Your task to perform on an android device: Search for Mexican restaurants on Maps Image 0: 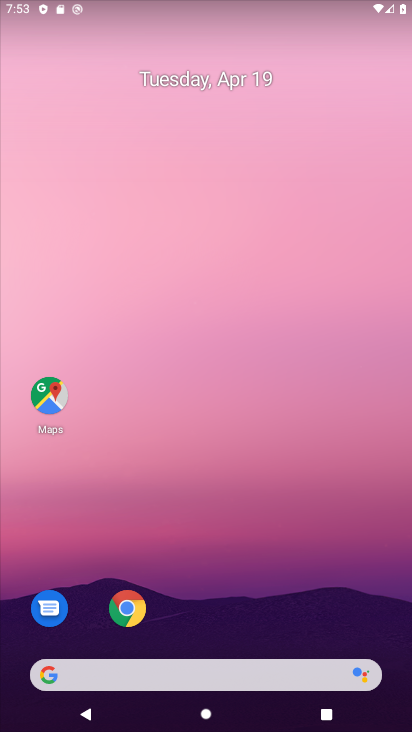
Step 0: drag from (272, 644) to (234, 116)
Your task to perform on an android device: Search for Mexican restaurants on Maps Image 1: 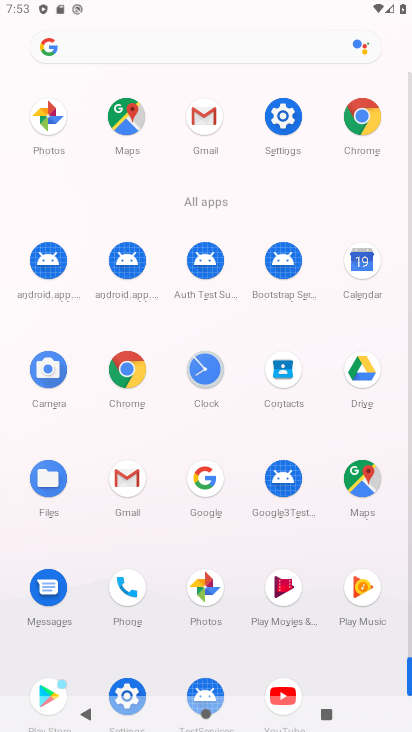
Step 1: click (126, 128)
Your task to perform on an android device: Search for Mexican restaurants on Maps Image 2: 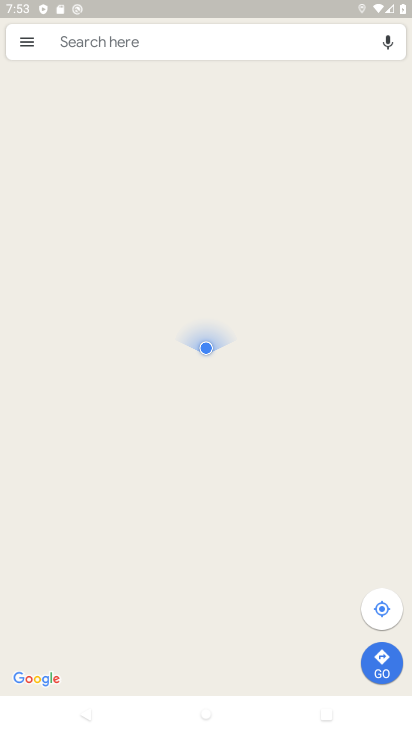
Step 2: click (214, 45)
Your task to perform on an android device: Search for Mexican restaurants on Maps Image 3: 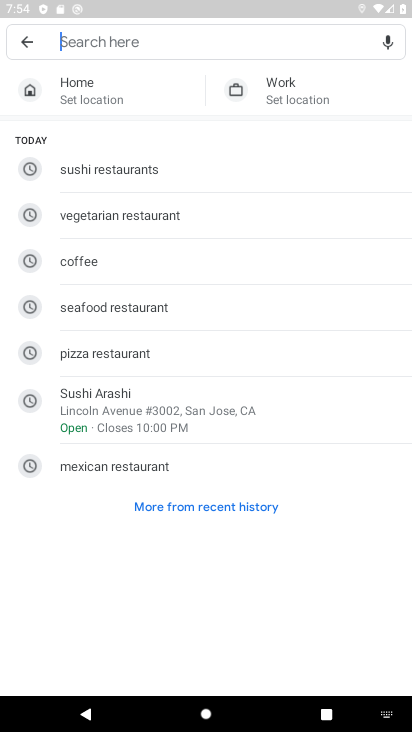
Step 3: type "mexican restarants"
Your task to perform on an android device: Search for Mexican restaurants on Maps Image 4: 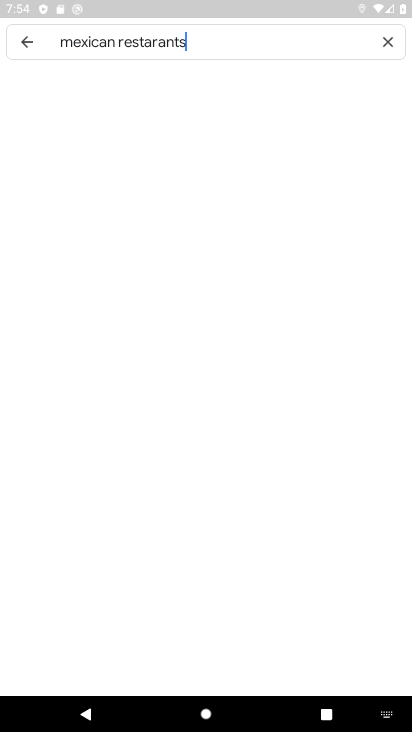
Step 4: type ""
Your task to perform on an android device: Search for Mexican restaurants on Maps Image 5: 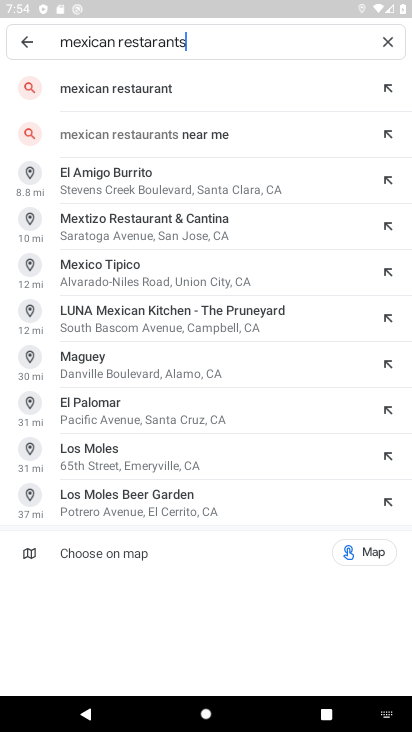
Step 5: click (214, 93)
Your task to perform on an android device: Search for Mexican restaurants on Maps Image 6: 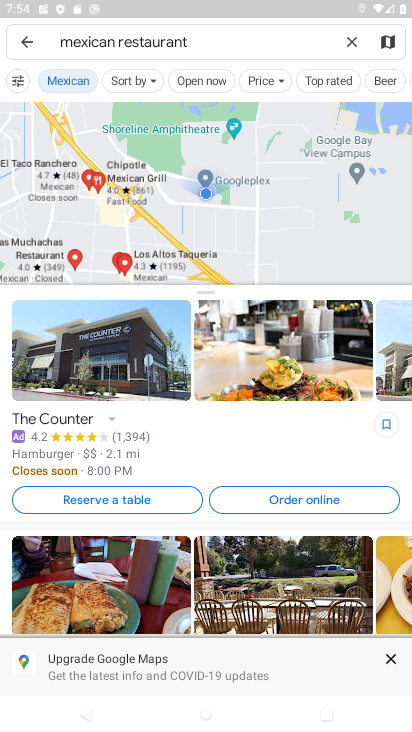
Step 6: task complete